Your task to perform on an android device: turn pop-ups on in chrome Image 0: 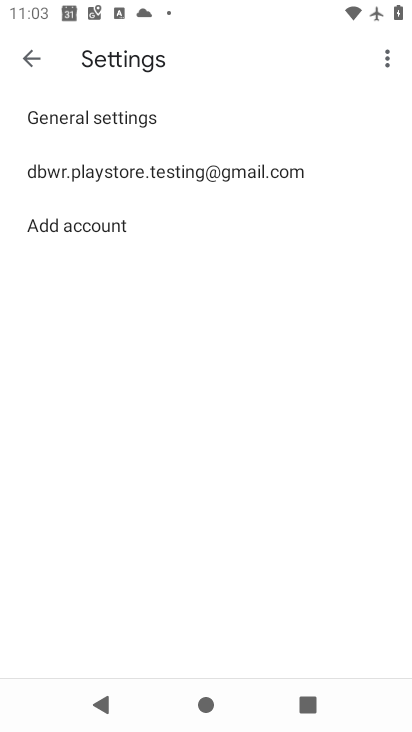
Step 0: press home button
Your task to perform on an android device: turn pop-ups on in chrome Image 1: 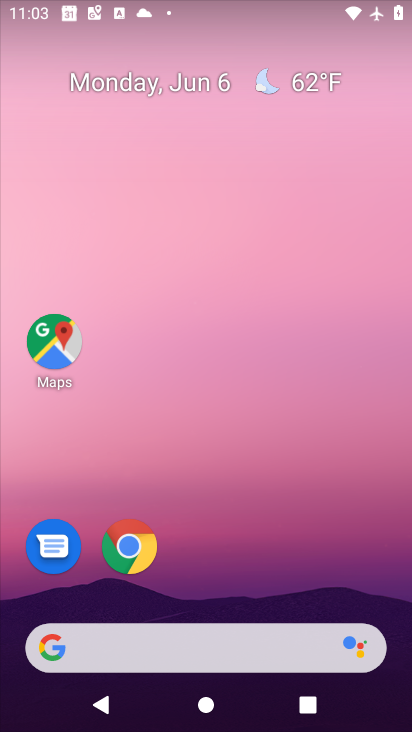
Step 1: click (130, 545)
Your task to perform on an android device: turn pop-ups on in chrome Image 2: 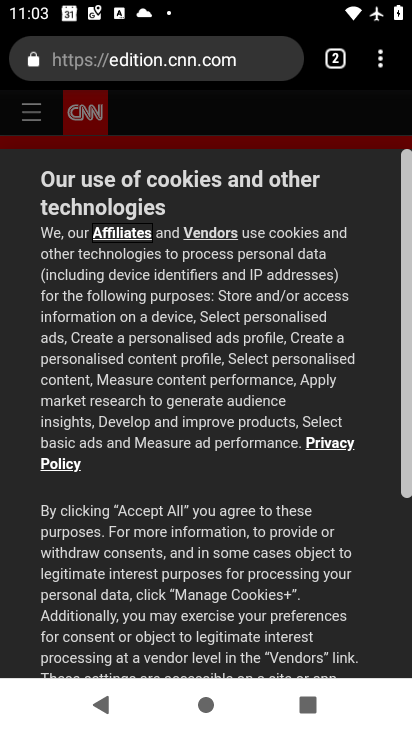
Step 2: click (377, 71)
Your task to perform on an android device: turn pop-ups on in chrome Image 3: 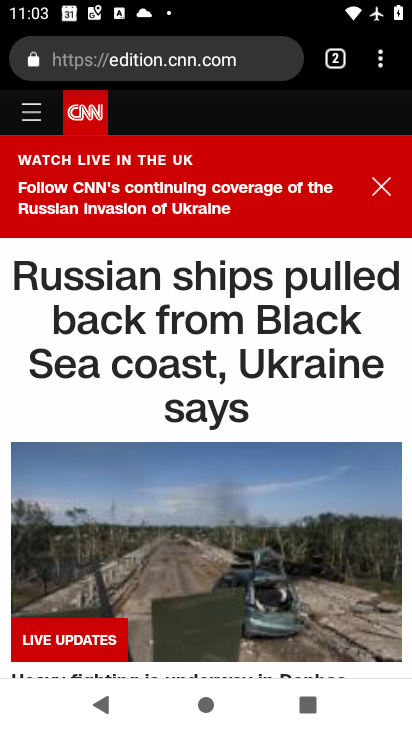
Step 3: click (378, 62)
Your task to perform on an android device: turn pop-ups on in chrome Image 4: 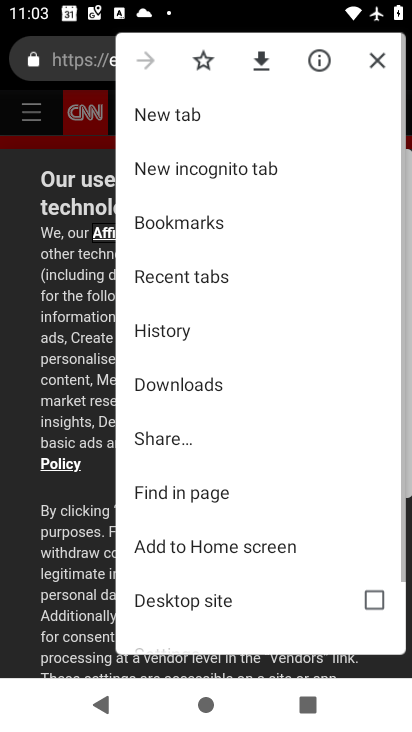
Step 4: drag from (261, 608) to (312, 126)
Your task to perform on an android device: turn pop-ups on in chrome Image 5: 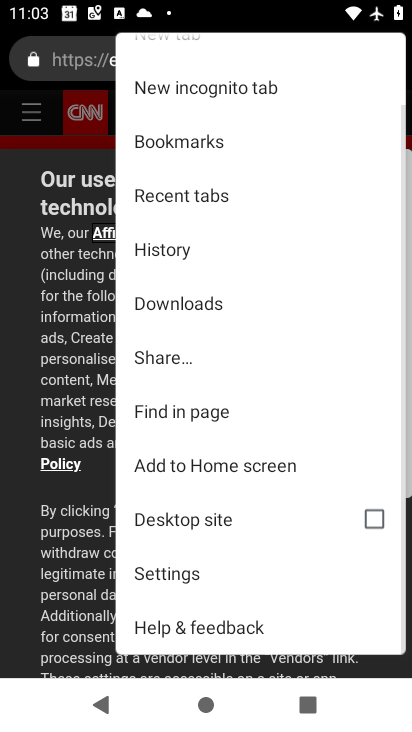
Step 5: click (182, 567)
Your task to perform on an android device: turn pop-ups on in chrome Image 6: 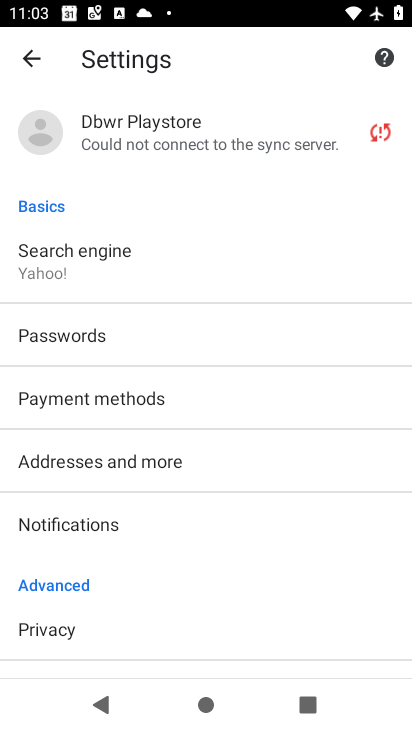
Step 6: drag from (238, 624) to (223, 235)
Your task to perform on an android device: turn pop-ups on in chrome Image 7: 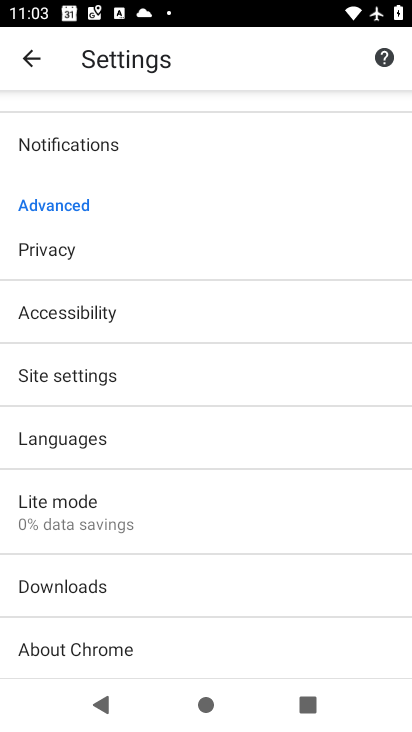
Step 7: click (66, 378)
Your task to perform on an android device: turn pop-ups on in chrome Image 8: 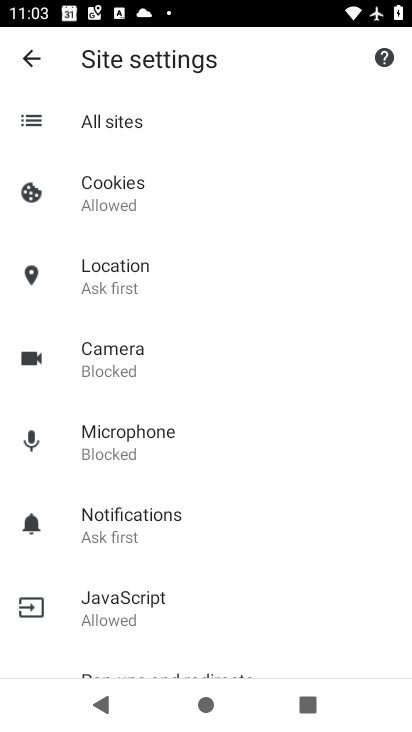
Step 8: drag from (182, 606) to (210, 230)
Your task to perform on an android device: turn pop-ups on in chrome Image 9: 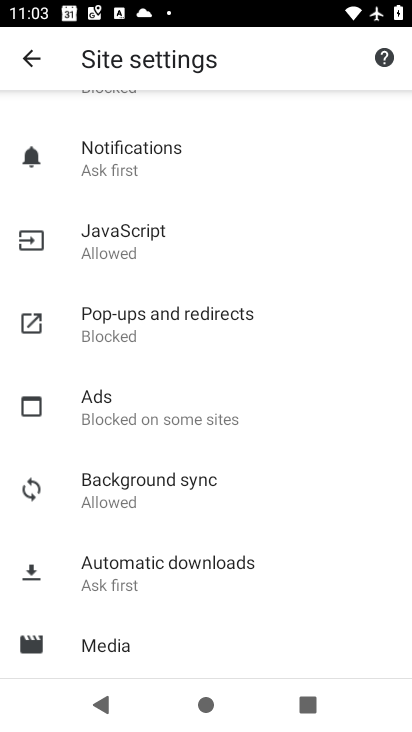
Step 9: click (127, 331)
Your task to perform on an android device: turn pop-ups on in chrome Image 10: 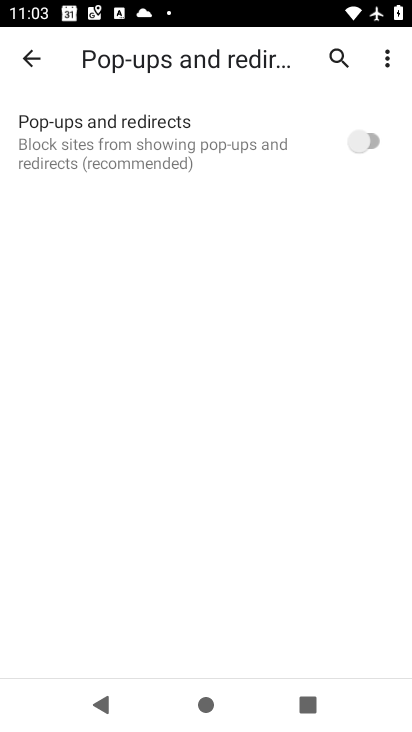
Step 10: click (375, 136)
Your task to perform on an android device: turn pop-ups on in chrome Image 11: 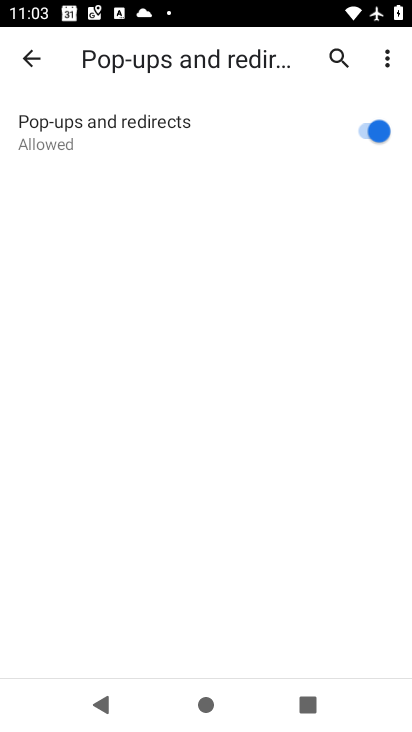
Step 11: task complete